Your task to perform on an android device: Go to sound settings Image 0: 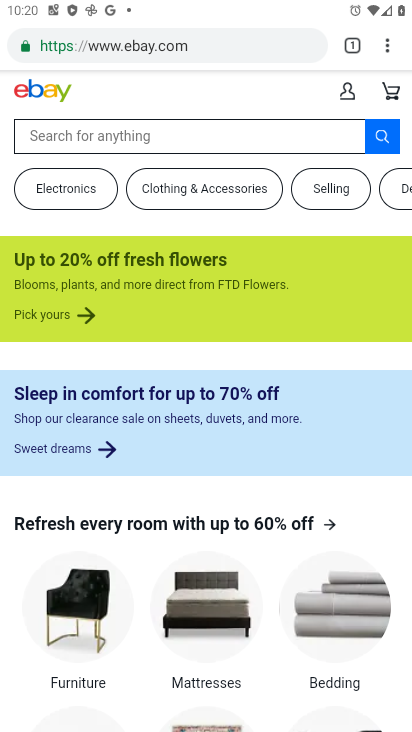
Step 0: press home button
Your task to perform on an android device: Go to sound settings Image 1: 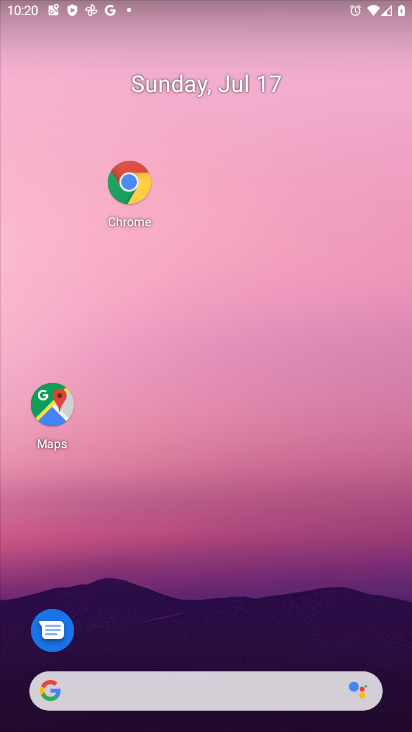
Step 1: drag from (229, 567) to (230, 158)
Your task to perform on an android device: Go to sound settings Image 2: 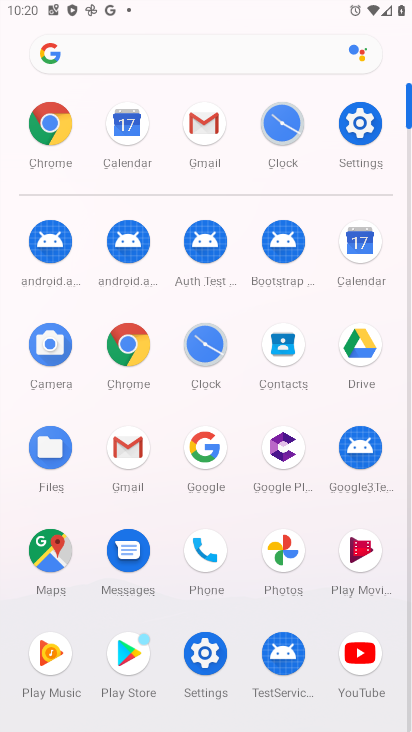
Step 2: click (361, 131)
Your task to perform on an android device: Go to sound settings Image 3: 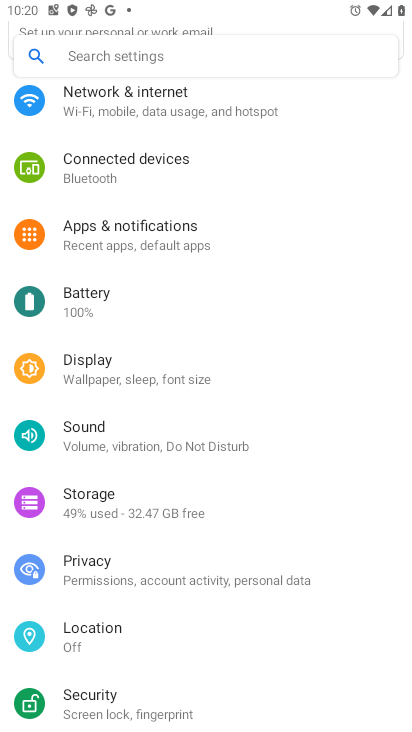
Step 3: click (79, 437)
Your task to perform on an android device: Go to sound settings Image 4: 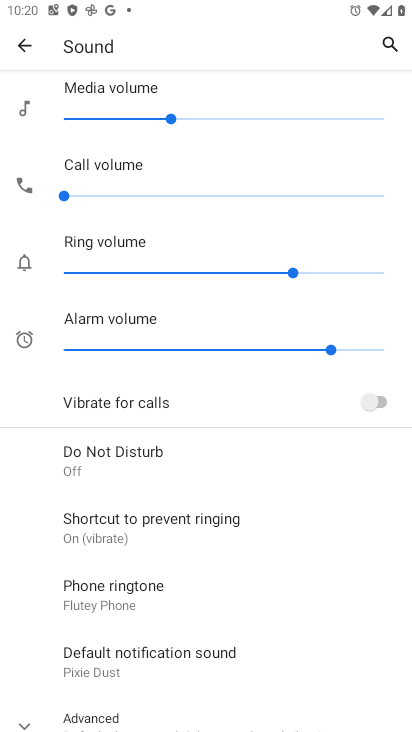
Step 4: task complete